Your task to perform on an android device: Search for the best rated headphones on amazon.com Image 0: 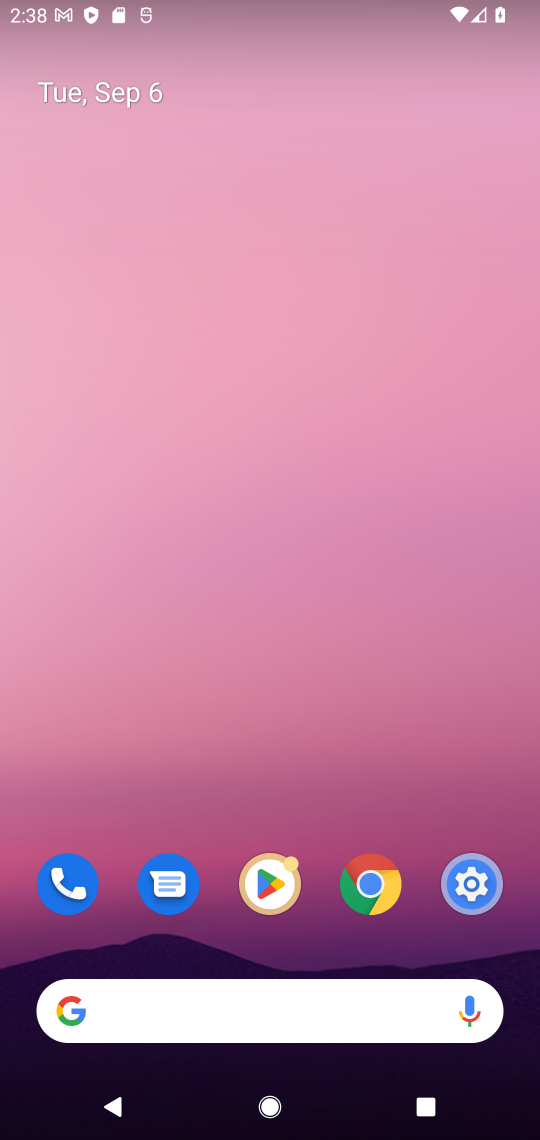
Step 0: click (374, 890)
Your task to perform on an android device: Search for the best rated headphones on amazon.com Image 1: 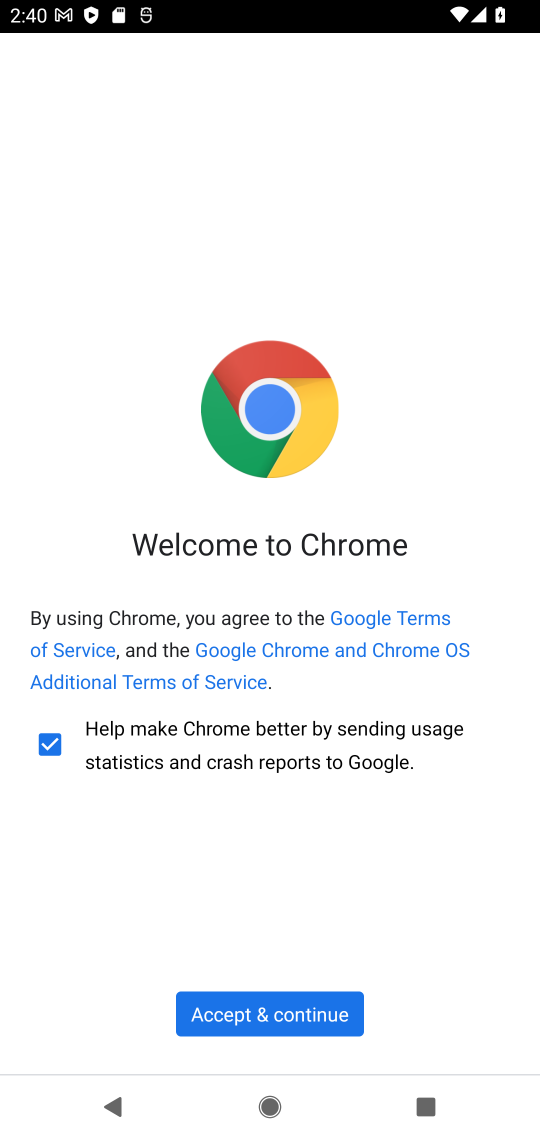
Step 1: click (276, 1014)
Your task to perform on an android device: Search for the best rated headphones on amazon.com Image 2: 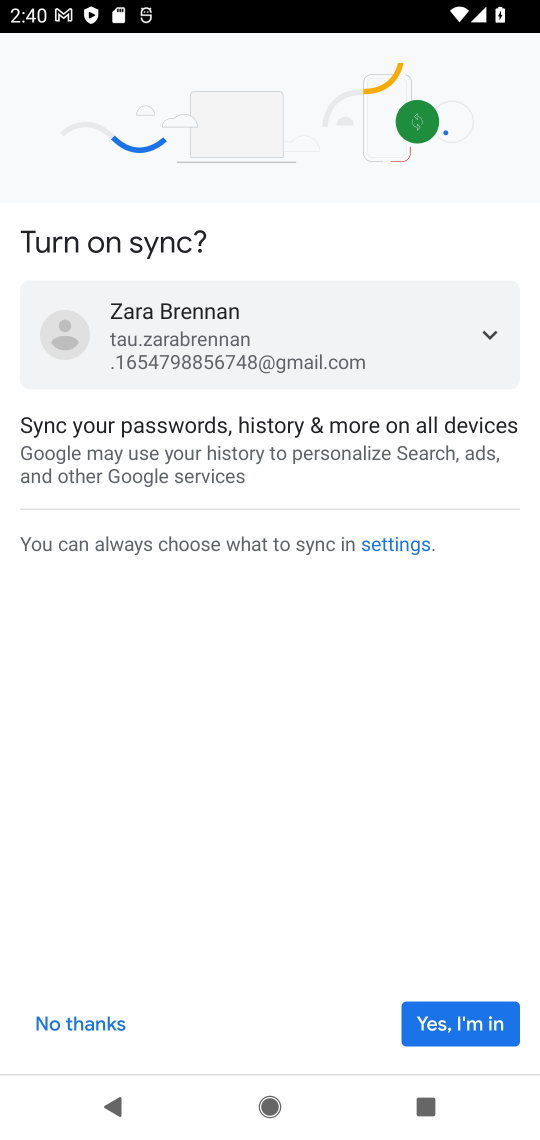
Step 2: click (443, 1028)
Your task to perform on an android device: Search for the best rated headphones on amazon.com Image 3: 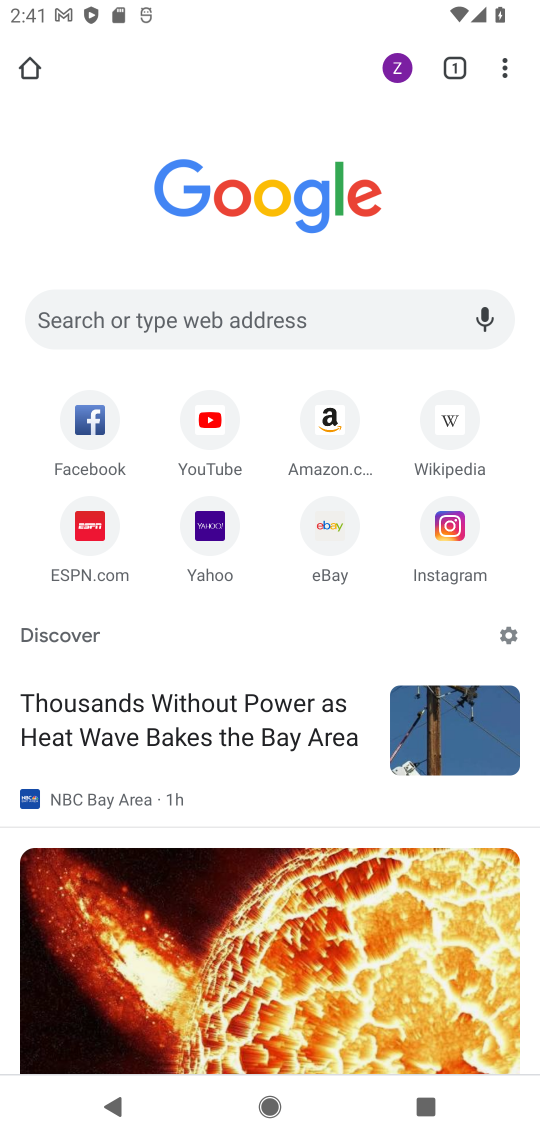
Step 3: click (320, 419)
Your task to perform on an android device: Search for the best rated headphones on amazon.com Image 4: 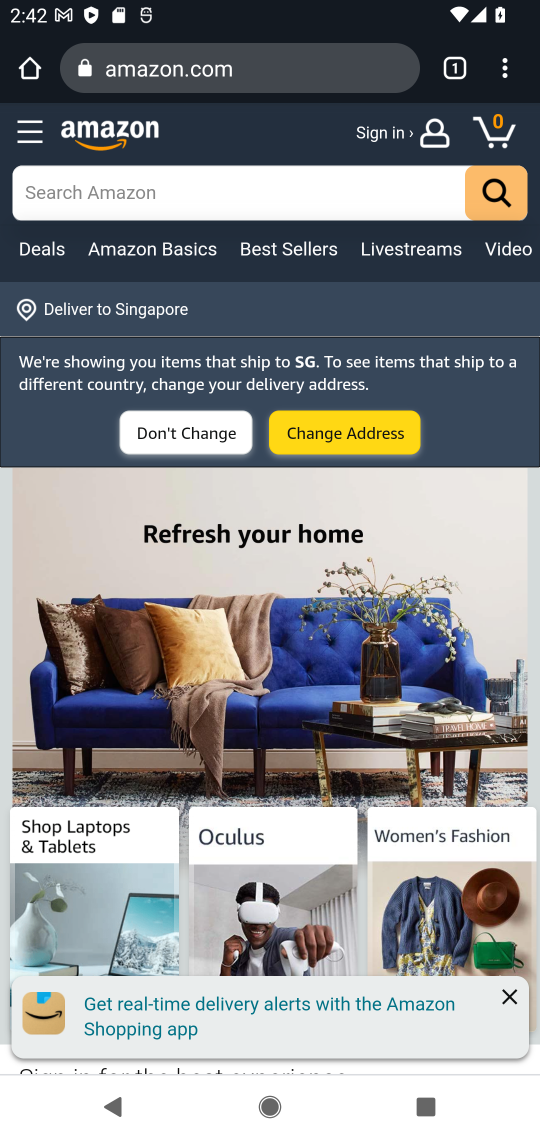
Step 4: click (194, 194)
Your task to perform on an android device: Search for the best rated headphones on amazon.com Image 5: 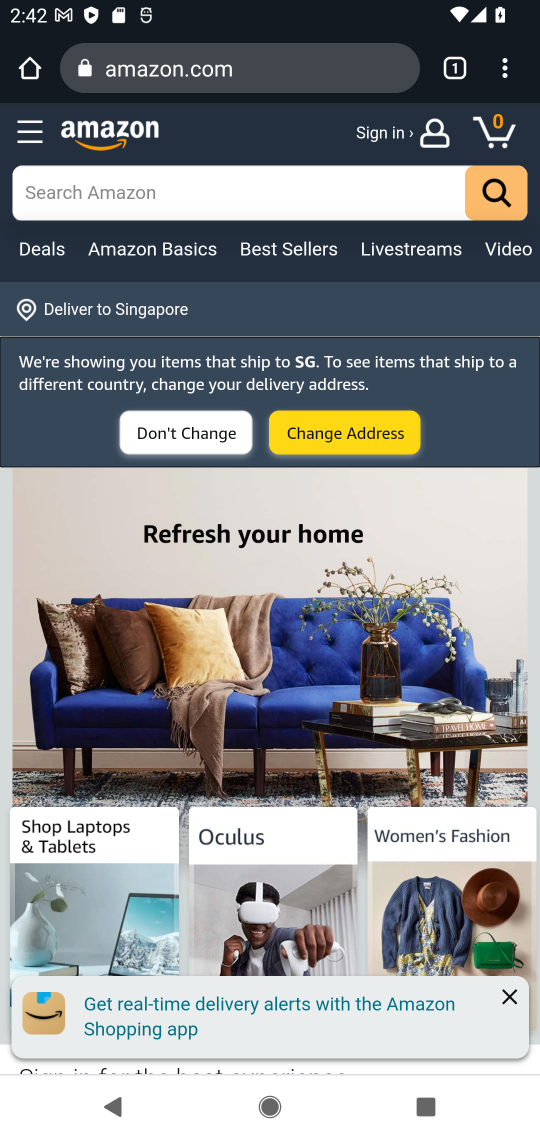
Step 5: task complete